Your task to perform on an android device: open device folders in google photos Image 0: 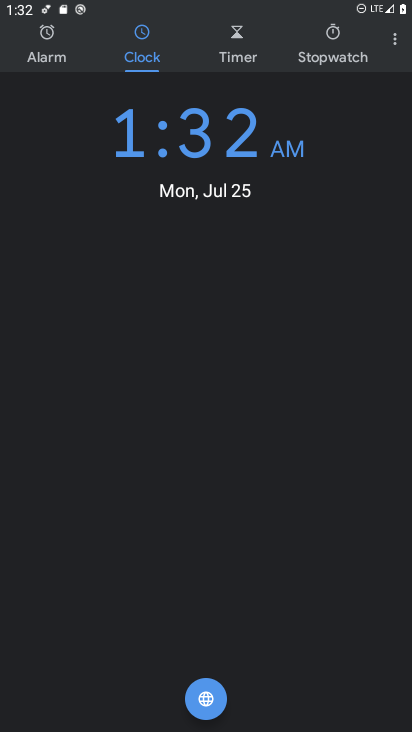
Step 0: press home button
Your task to perform on an android device: open device folders in google photos Image 1: 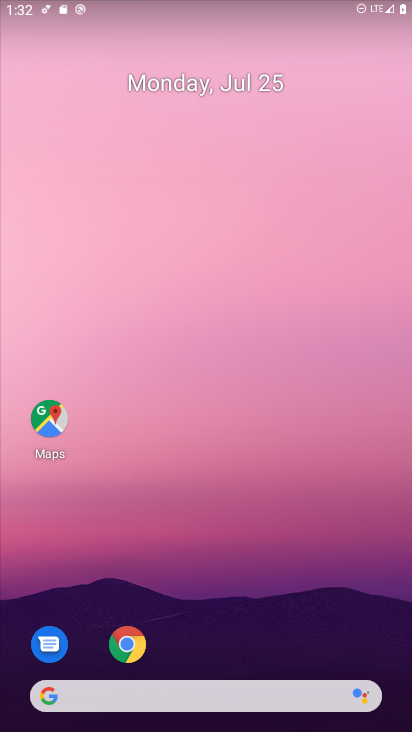
Step 1: drag from (207, 720) to (193, 134)
Your task to perform on an android device: open device folders in google photos Image 2: 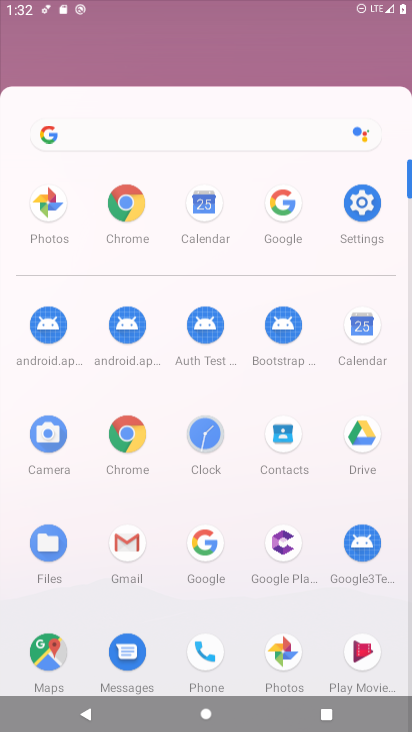
Step 2: click (192, 53)
Your task to perform on an android device: open device folders in google photos Image 3: 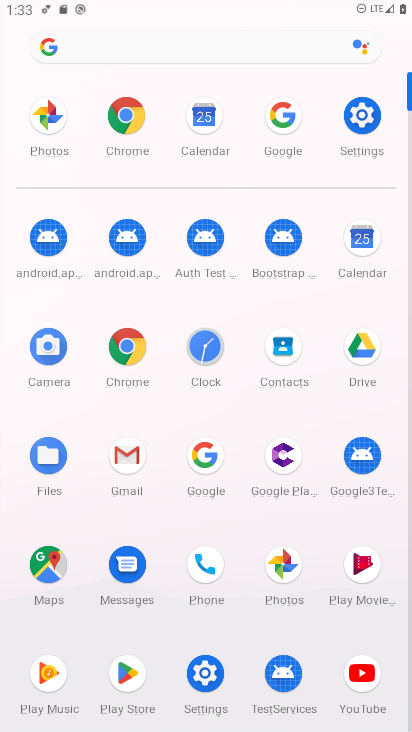
Step 3: click (288, 560)
Your task to perform on an android device: open device folders in google photos Image 4: 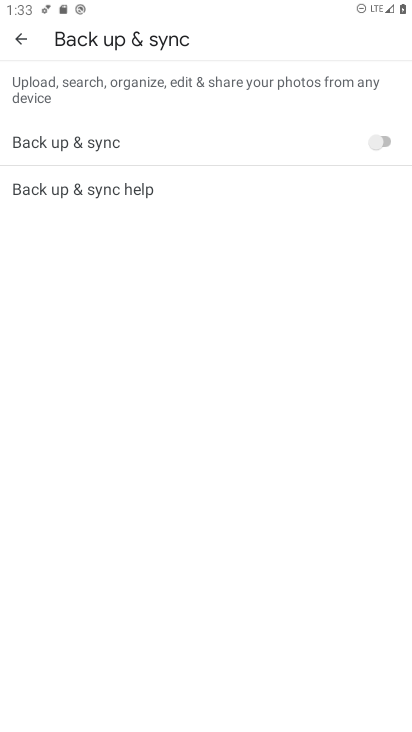
Step 4: click (17, 33)
Your task to perform on an android device: open device folders in google photos Image 5: 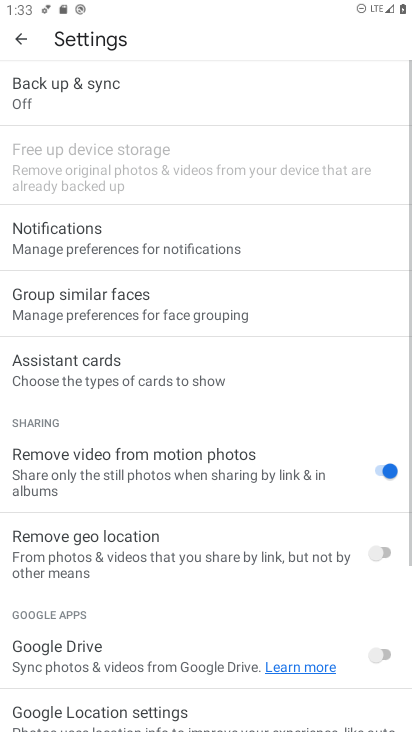
Step 5: click (17, 33)
Your task to perform on an android device: open device folders in google photos Image 6: 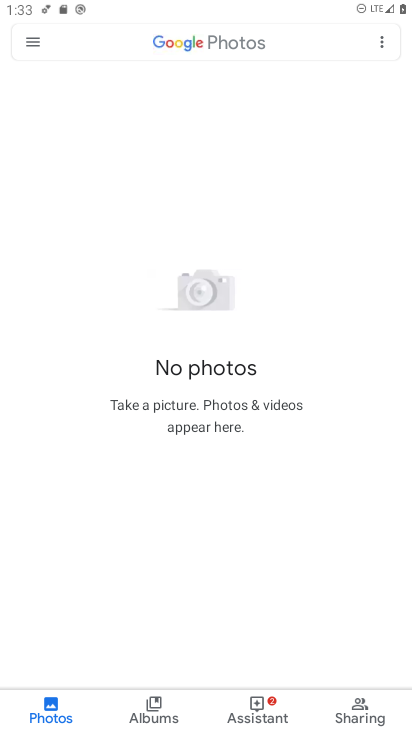
Step 6: click (28, 41)
Your task to perform on an android device: open device folders in google photos Image 7: 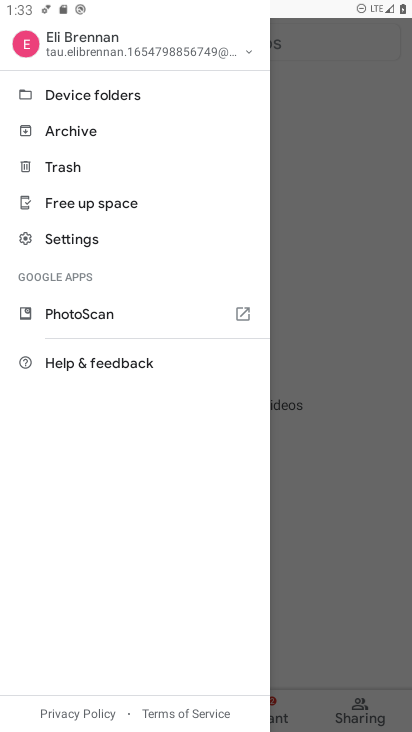
Step 7: click (79, 97)
Your task to perform on an android device: open device folders in google photos Image 8: 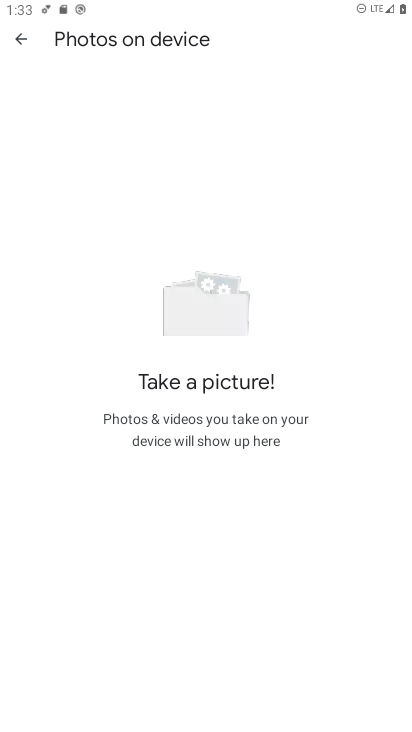
Step 8: task complete